Your task to perform on an android device: clear all cookies in the chrome app Image 0: 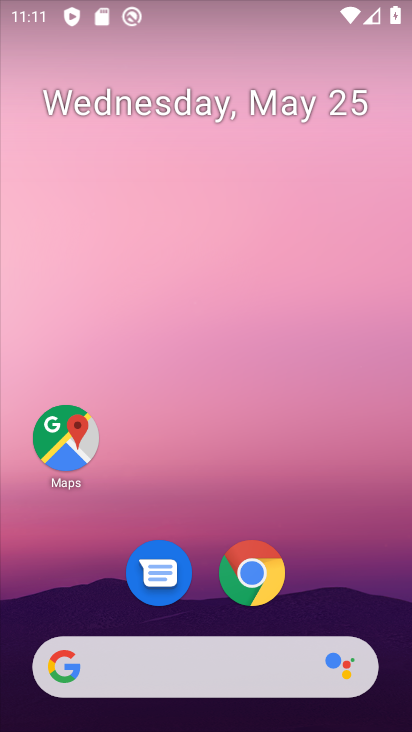
Step 0: click (257, 569)
Your task to perform on an android device: clear all cookies in the chrome app Image 1: 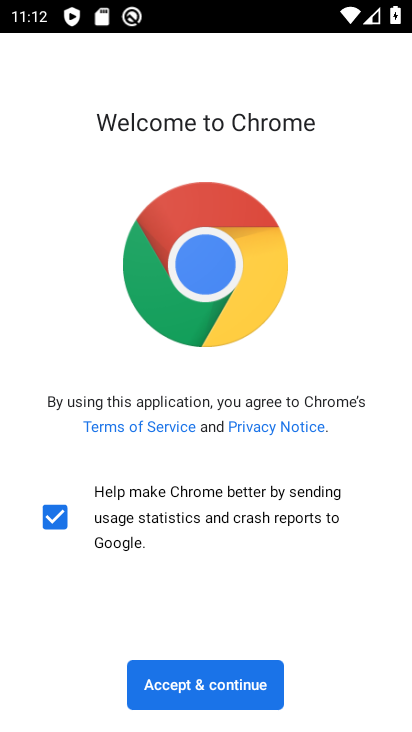
Step 1: click (234, 703)
Your task to perform on an android device: clear all cookies in the chrome app Image 2: 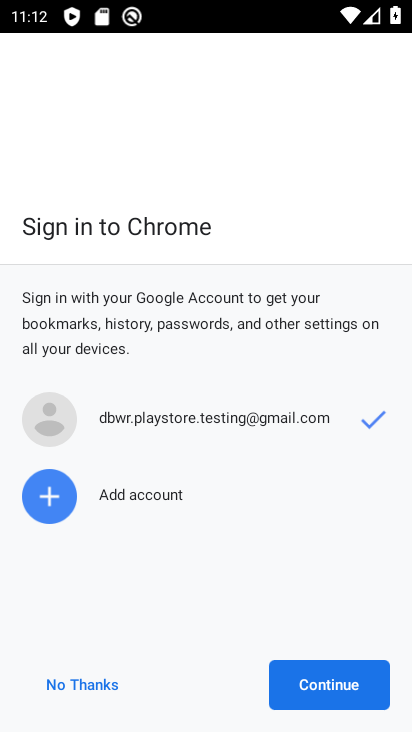
Step 2: click (371, 680)
Your task to perform on an android device: clear all cookies in the chrome app Image 3: 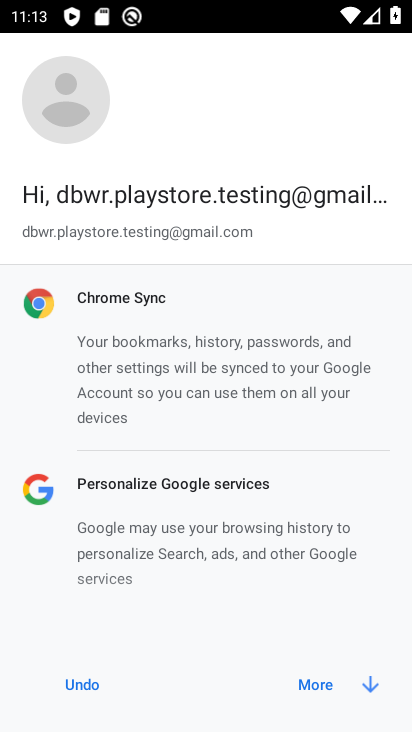
Step 3: click (358, 679)
Your task to perform on an android device: clear all cookies in the chrome app Image 4: 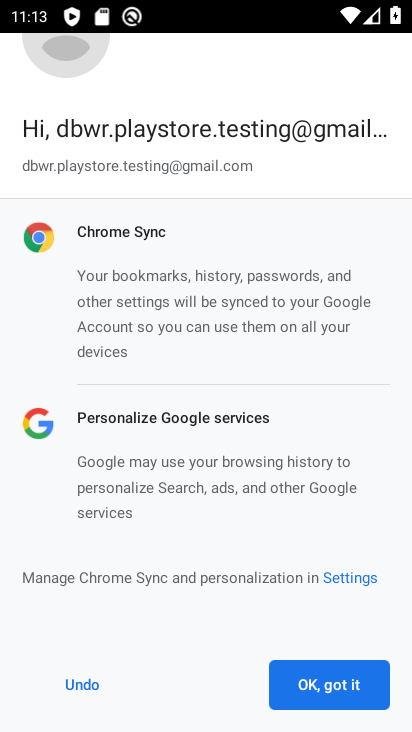
Step 4: click (329, 700)
Your task to perform on an android device: clear all cookies in the chrome app Image 5: 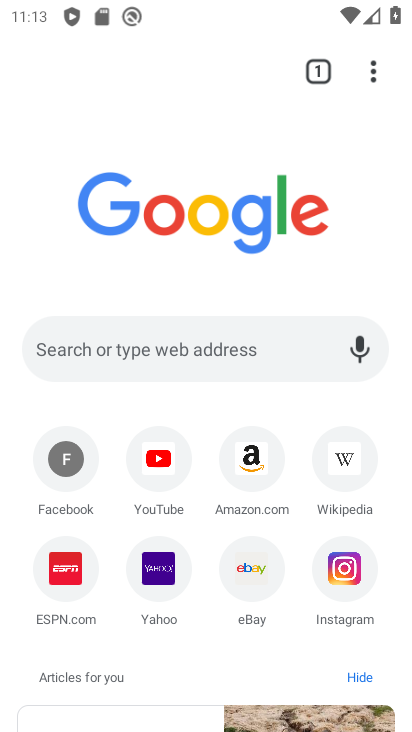
Step 5: click (374, 74)
Your task to perform on an android device: clear all cookies in the chrome app Image 6: 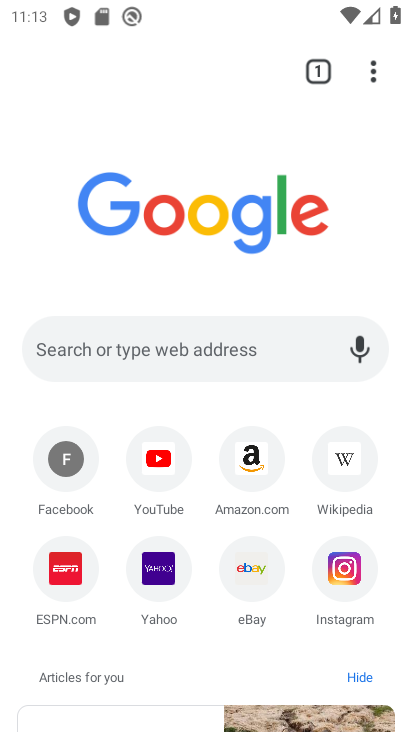
Step 6: drag from (367, 79) to (181, 590)
Your task to perform on an android device: clear all cookies in the chrome app Image 7: 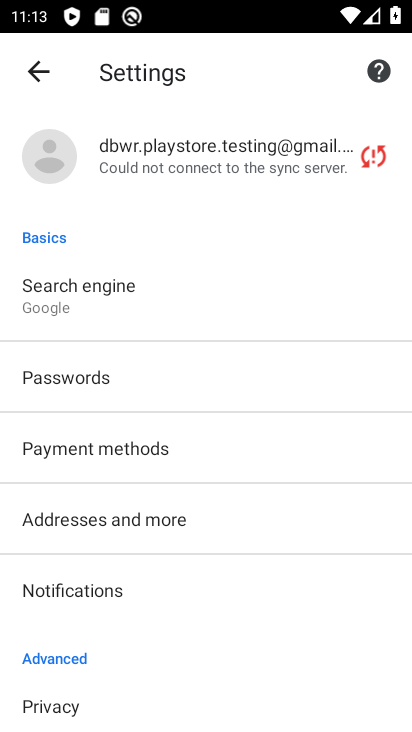
Step 7: drag from (262, 643) to (230, 312)
Your task to perform on an android device: clear all cookies in the chrome app Image 8: 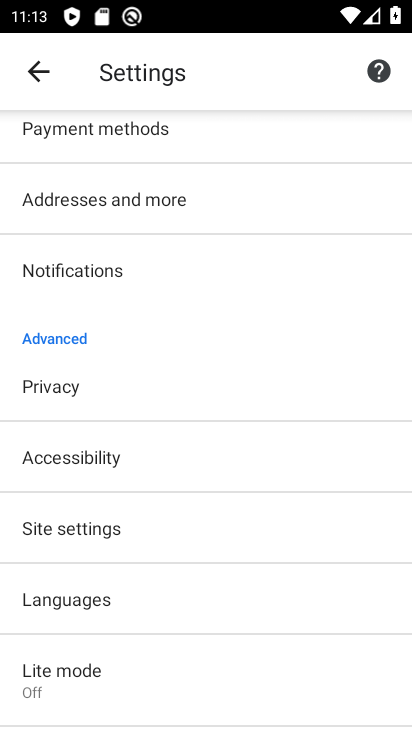
Step 8: click (61, 384)
Your task to perform on an android device: clear all cookies in the chrome app Image 9: 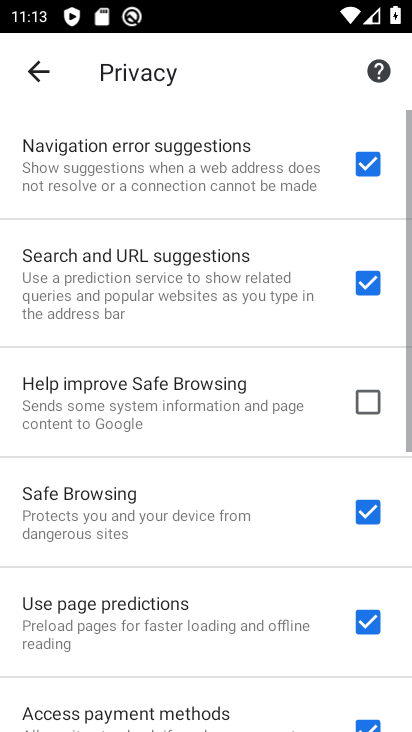
Step 9: drag from (168, 597) to (119, 76)
Your task to perform on an android device: clear all cookies in the chrome app Image 10: 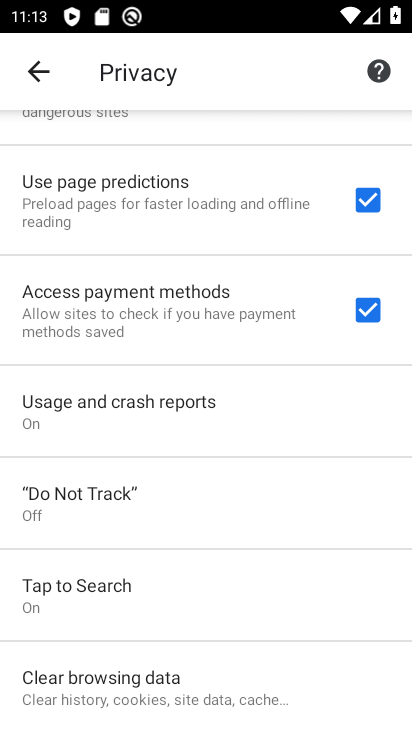
Step 10: click (208, 681)
Your task to perform on an android device: clear all cookies in the chrome app Image 11: 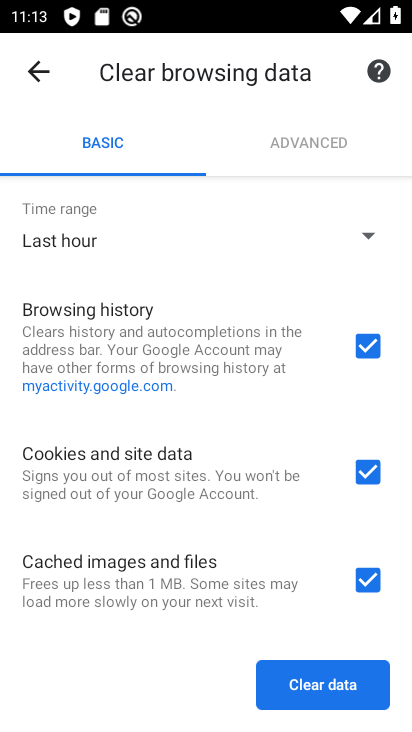
Step 11: click (362, 352)
Your task to perform on an android device: clear all cookies in the chrome app Image 12: 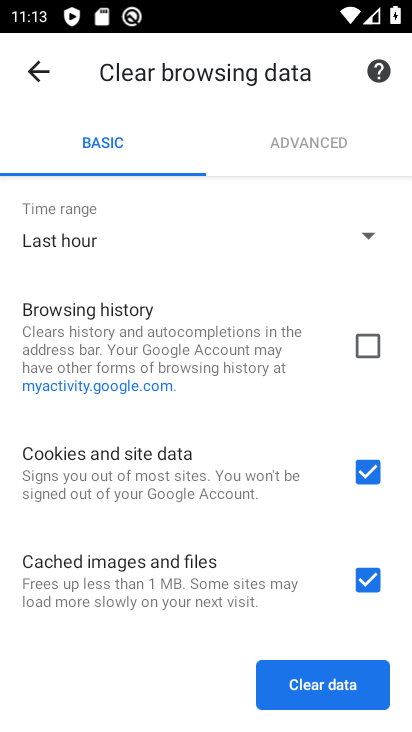
Step 12: click (363, 573)
Your task to perform on an android device: clear all cookies in the chrome app Image 13: 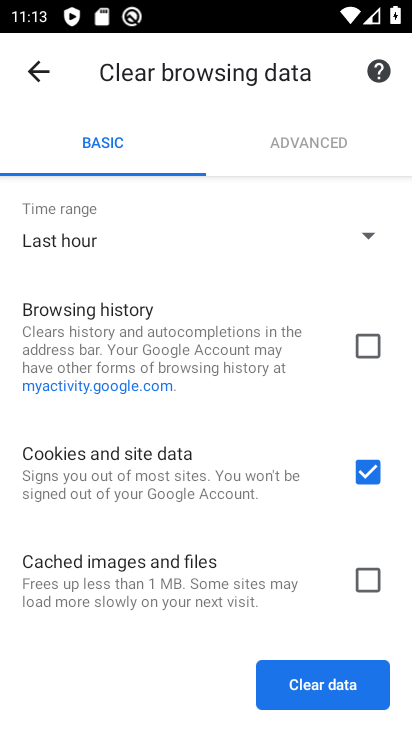
Step 13: click (325, 684)
Your task to perform on an android device: clear all cookies in the chrome app Image 14: 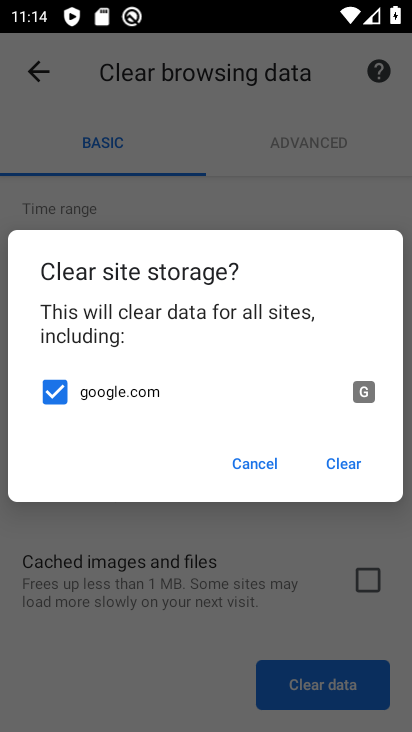
Step 14: click (333, 460)
Your task to perform on an android device: clear all cookies in the chrome app Image 15: 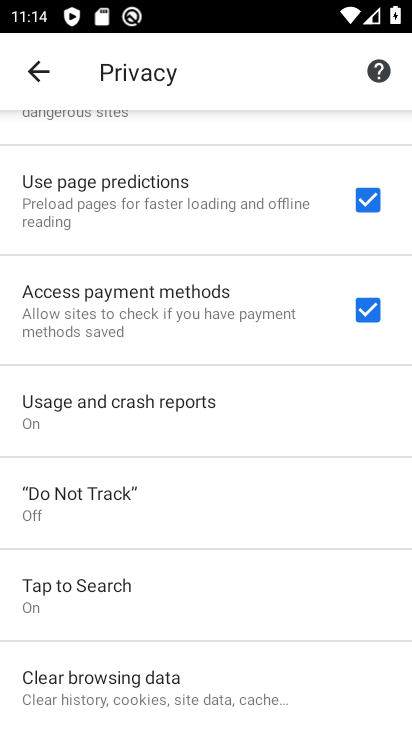
Step 15: task complete